Your task to perform on an android device: turn on data saver in the chrome app Image 0: 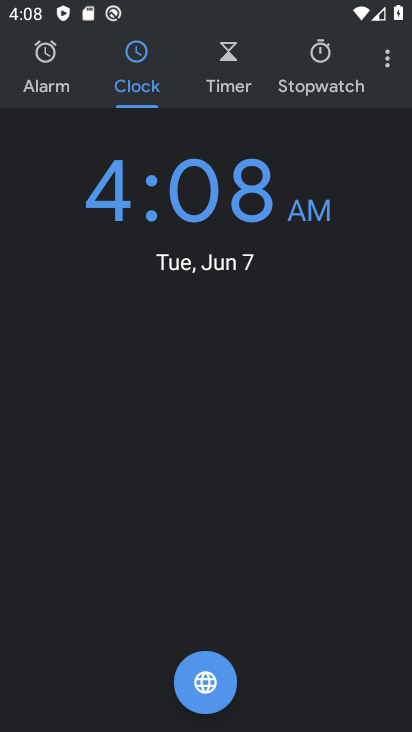
Step 0: press home button
Your task to perform on an android device: turn on data saver in the chrome app Image 1: 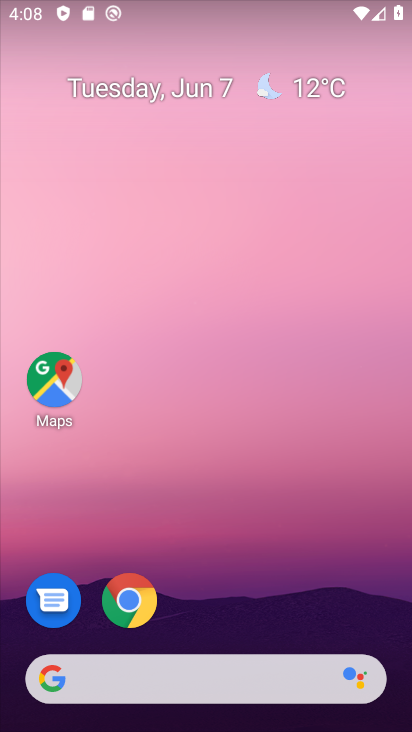
Step 1: drag from (231, 505) to (223, 246)
Your task to perform on an android device: turn on data saver in the chrome app Image 2: 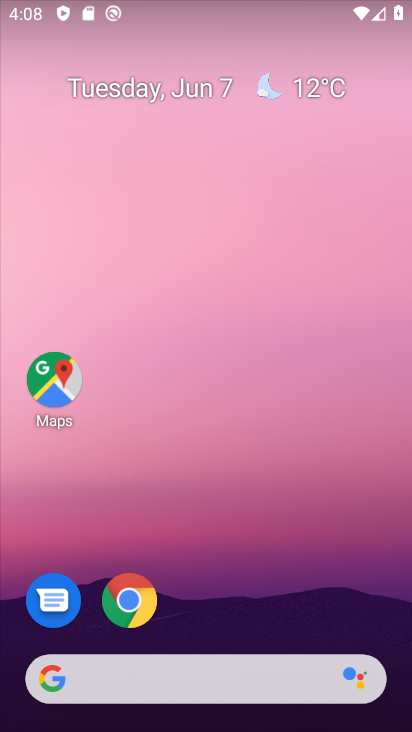
Step 2: drag from (192, 595) to (192, 250)
Your task to perform on an android device: turn on data saver in the chrome app Image 3: 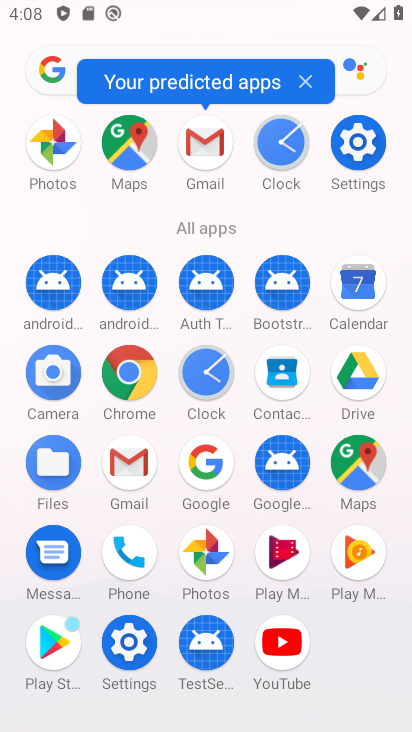
Step 3: click (131, 386)
Your task to perform on an android device: turn on data saver in the chrome app Image 4: 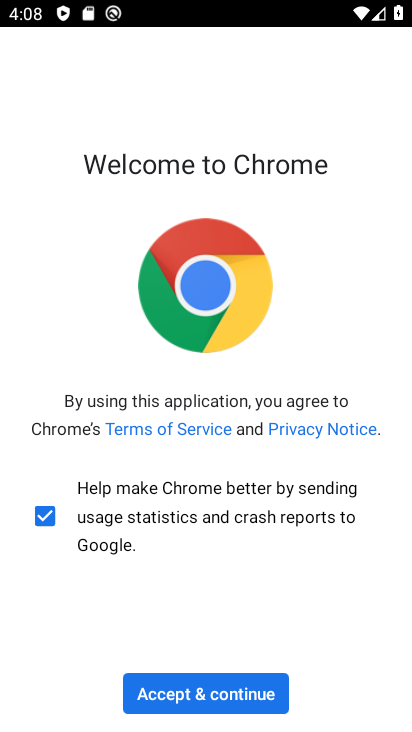
Step 4: click (189, 685)
Your task to perform on an android device: turn on data saver in the chrome app Image 5: 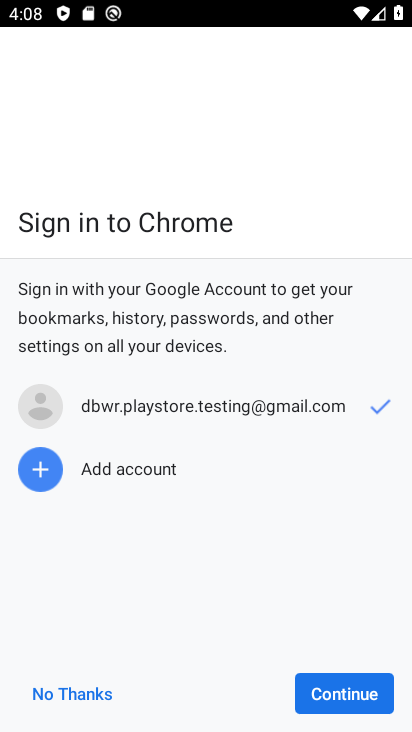
Step 5: click (305, 689)
Your task to perform on an android device: turn on data saver in the chrome app Image 6: 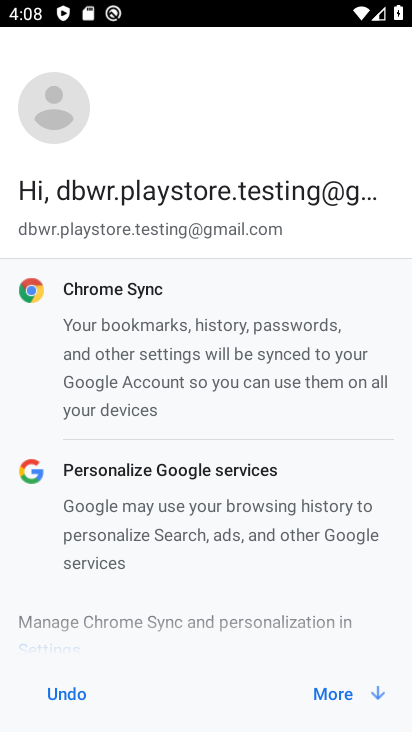
Step 6: click (305, 689)
Your task to perform on an android device: turn on data saver in the chrome app Image 7: 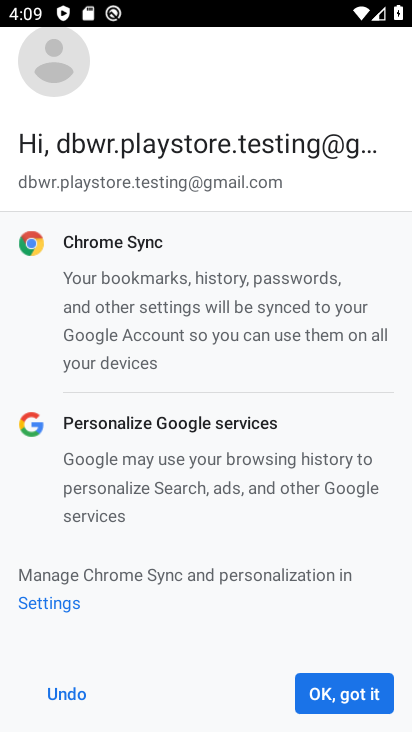
Step 7: click (321, 698)
Your task to perform on an android device: turn on data saver in the chrome app Image 8: 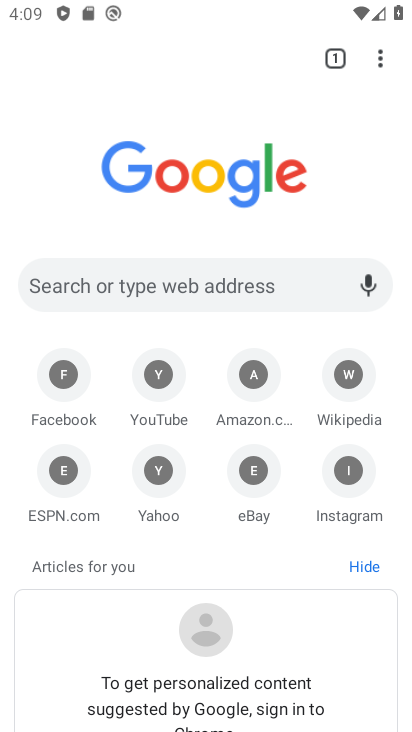
Step 8: click (380, 58)
Your task to perform on an android device: turn on data saver in the chrome app Image 9: 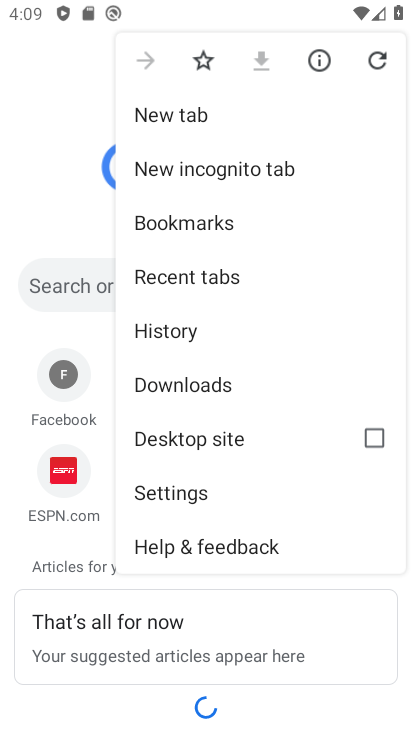
Step 9: click (171, 488)
Your task to perform on an android device: turn on data saver in the chrome app Image 10: 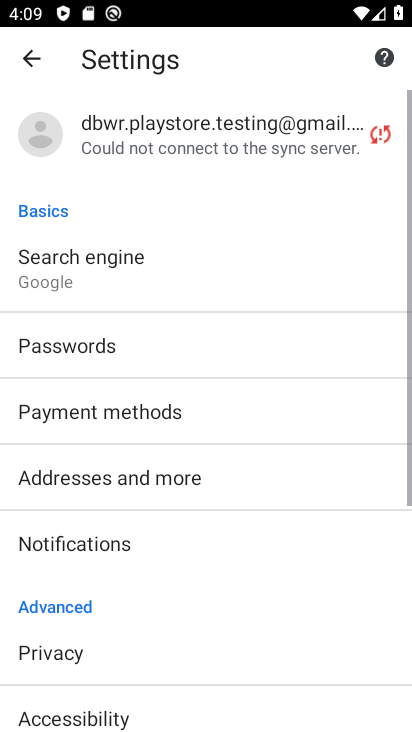
Step 10: drag from (160, 654) to (160, 213)
Your task to perform on an android device: turn on data saver in the chrome app Image 11: 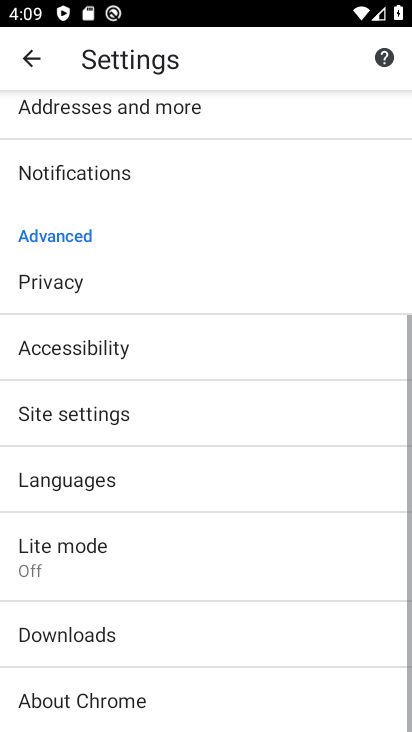
Step 11: click (86, 560)
Your task to perform on an android device: turn on data saver in the chrome app Image 12: 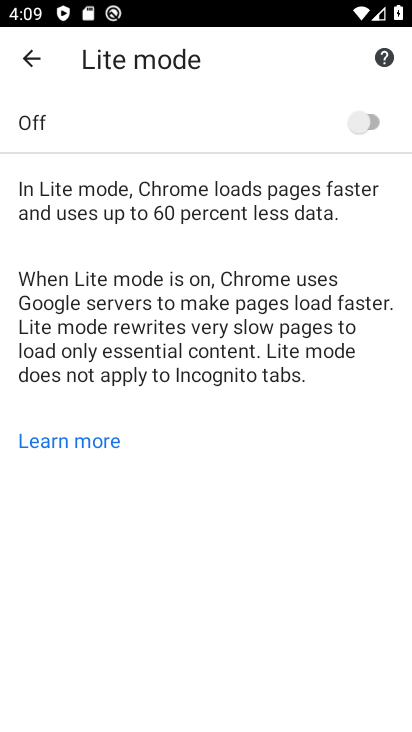
Step 12: click (367, 122)
Your task to perform on an android device: turn on data saver in the chrome app Image 13: 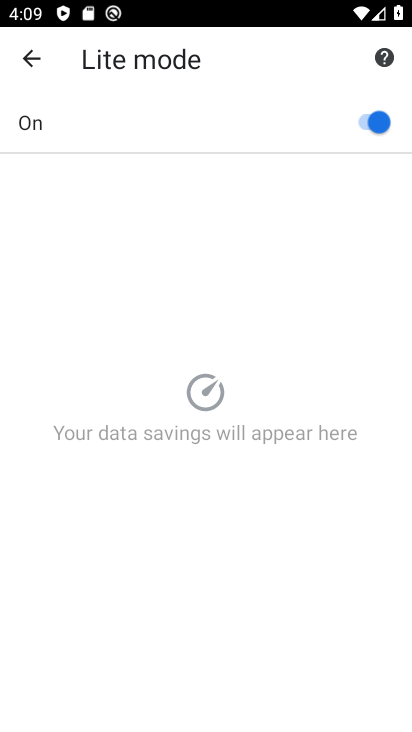
Step 13: task complete